Your task to perform on an android device: Is it going to rain this weekend? Image 0: 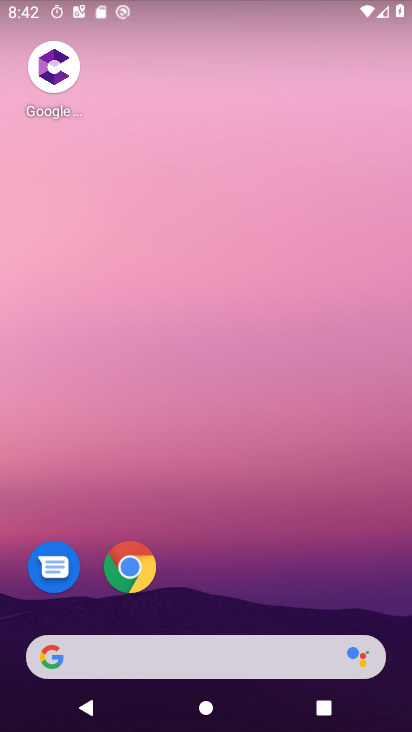
Step 0: drag from (51, 413) to (394, 375)
Your task to perform on an android device: Is it going to rain this weekend? Image 1: 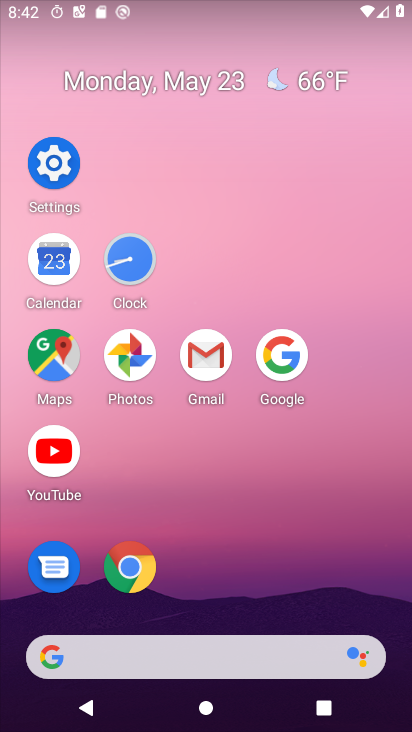
Step 1: click (287, 347)
Your task to perform on an android device: Is it going to rain this weekend? Image 2: 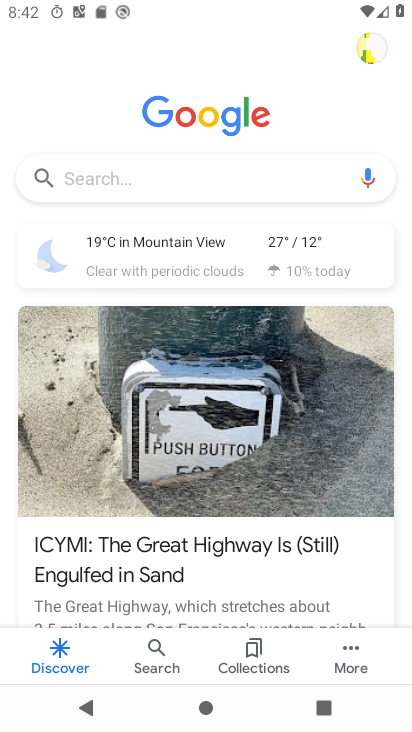
Step 2: click (209, 173)
Your task to perform on an android device: Is it going to rain this weekend? Image 3: 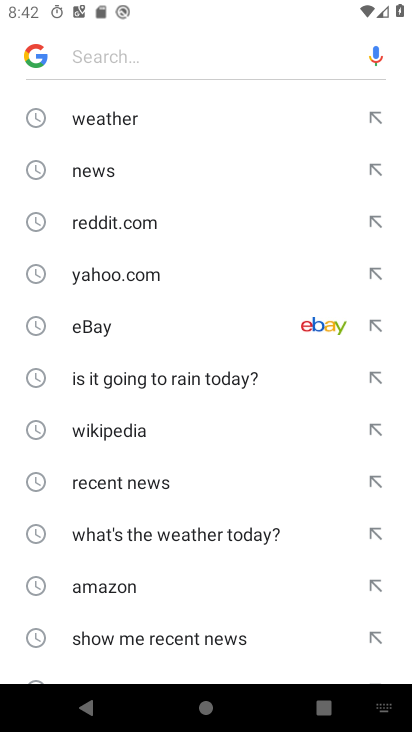
Step 3: click (155, 114)
Your task to perform on an android device: Is it going to rain this weekend? Image 4: 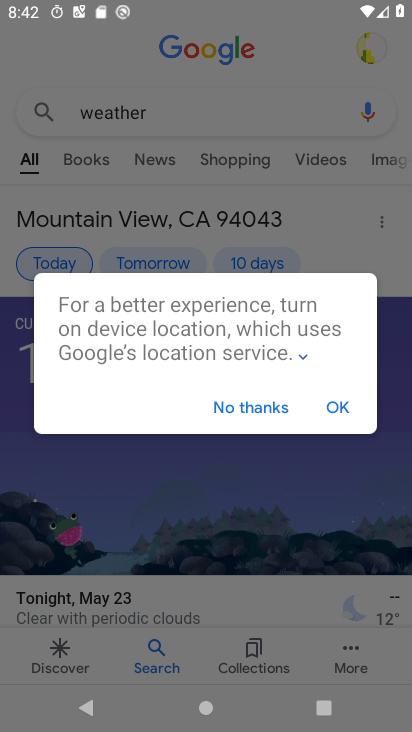
Step 4: click (271, 257)
Your task to perform on an android device: Is it going to rain this weekend? Image 5: 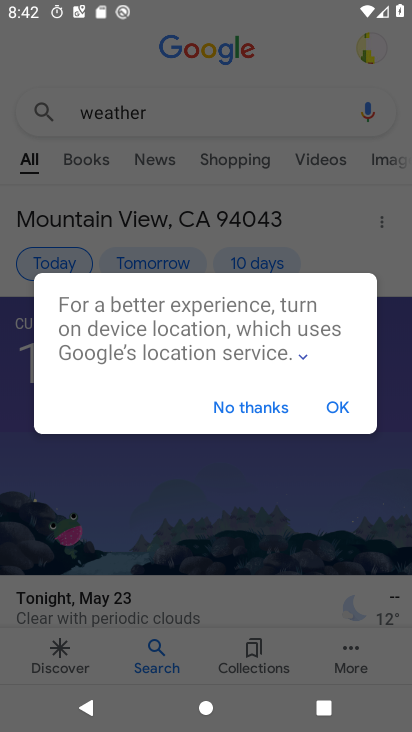
Step 5: click (339, 424)
Your task to perform on an android device: Is it going to rain this weekend? Image 6: 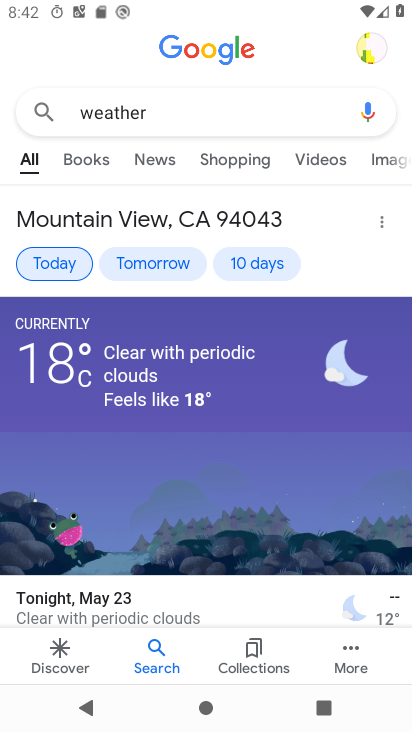
Step 6: click (264, 262)
Your task to perform on an android device: Is it going to rain this weekend? Image 7: 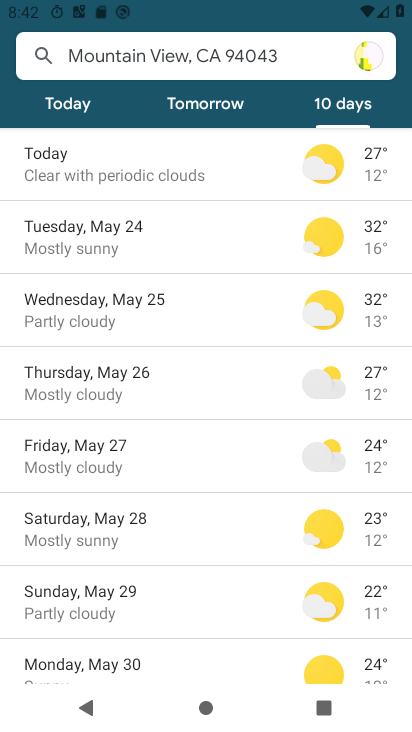
Step 7: click (181, 537)
Your task to perform on an android device: Is it going to rain this weekend? Image 8: 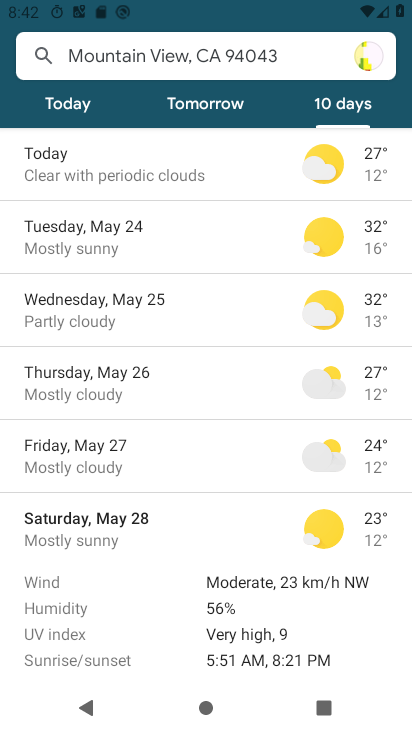
Step 8: task complete